Your task to perform on an android device: View the shopping cart on newegg. Image 0: 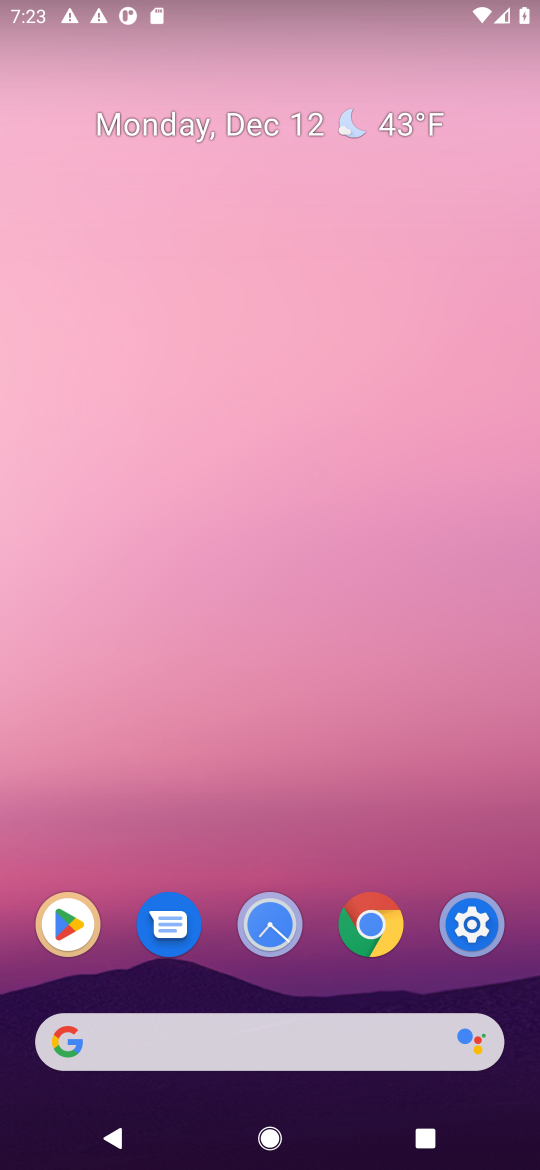
Step 0: click (272, 1039)
Your task to perform on an android device: View the shopping cart on newegg. Image 1: 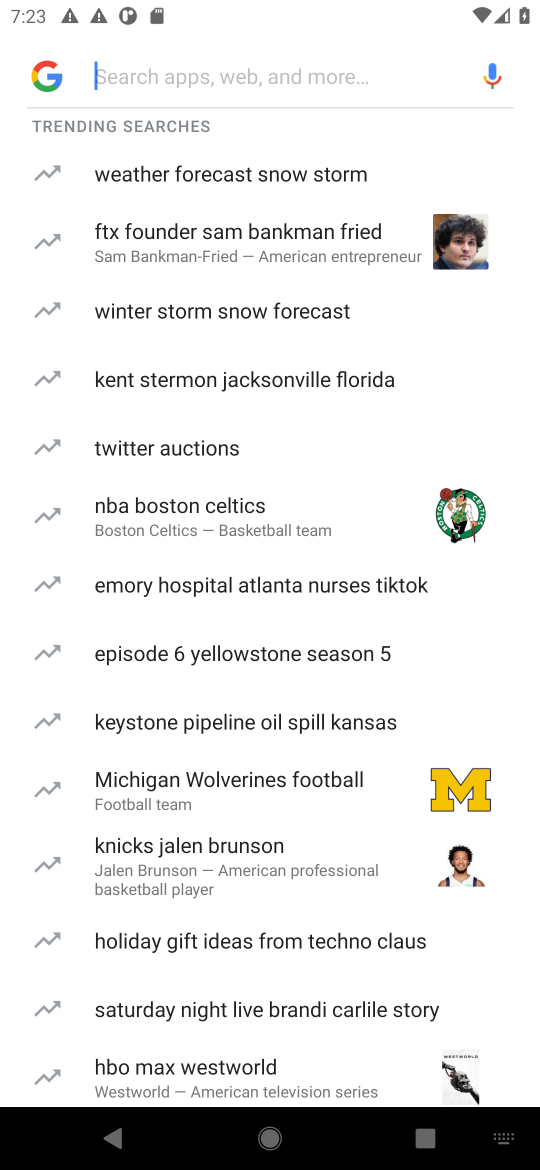
Step 1: type "newegg"
Your task to perform on an android device: View the shopping cart on newegg. Image 2: 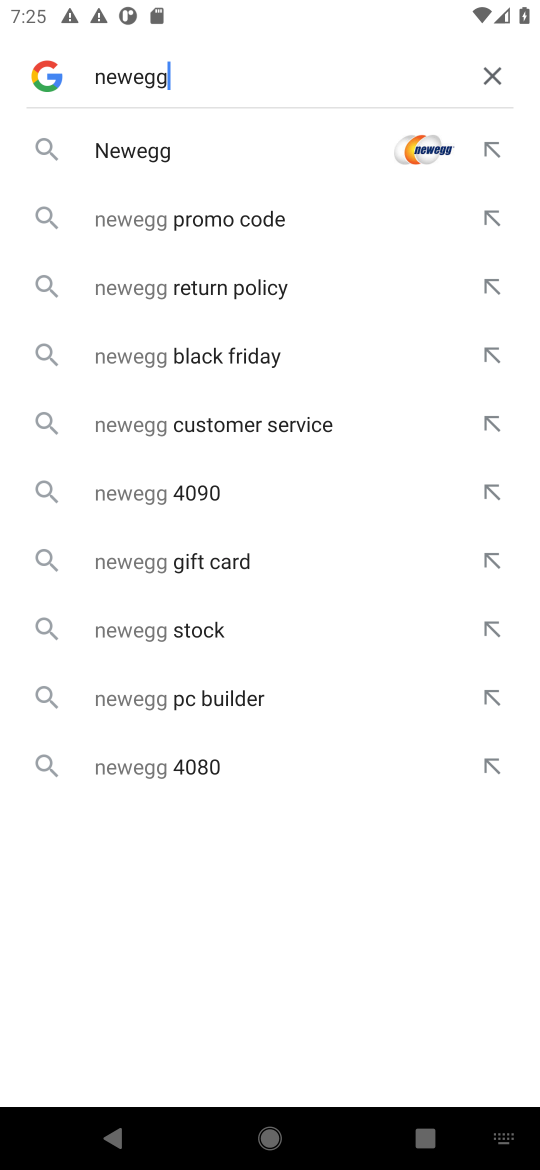
Step 2: click (142, 153)
Your task to perform on an android device: View the shopping cart on newegg. Image 3: 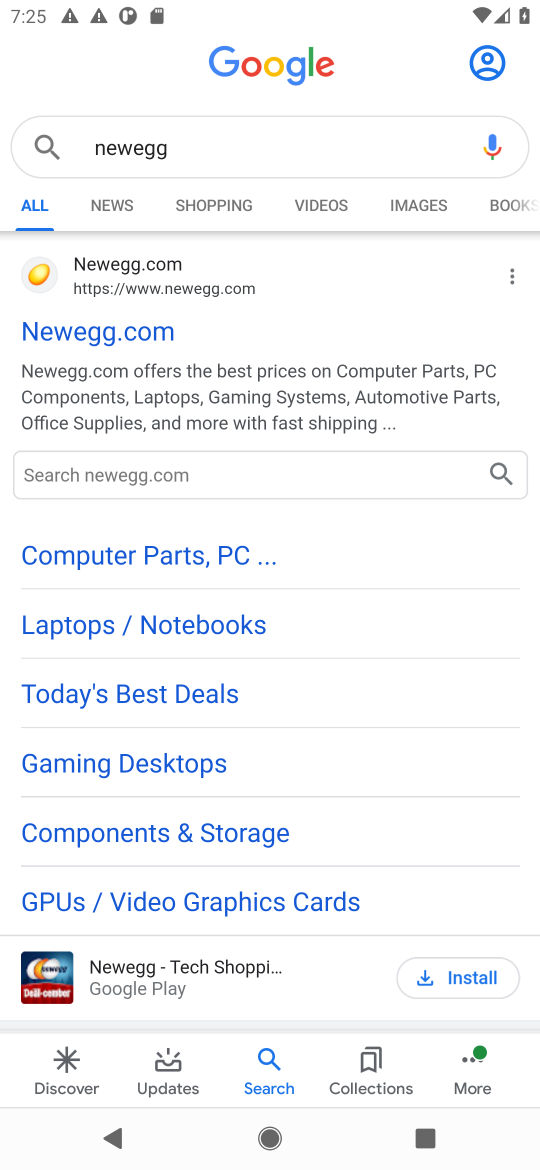
Step 3: click (79, 326)
Your task to perform on an android device: View the shopping cart on newegg. Image 4: 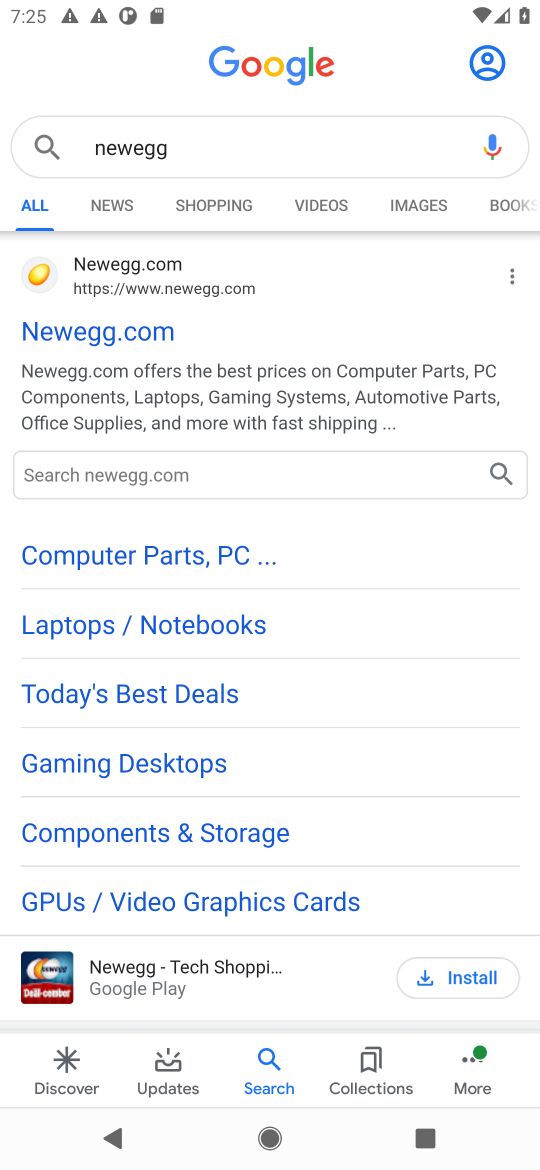
Step 4: click (79, 326)
Your task to perform on an android device: View the shopping cart on newegg. Image 5: 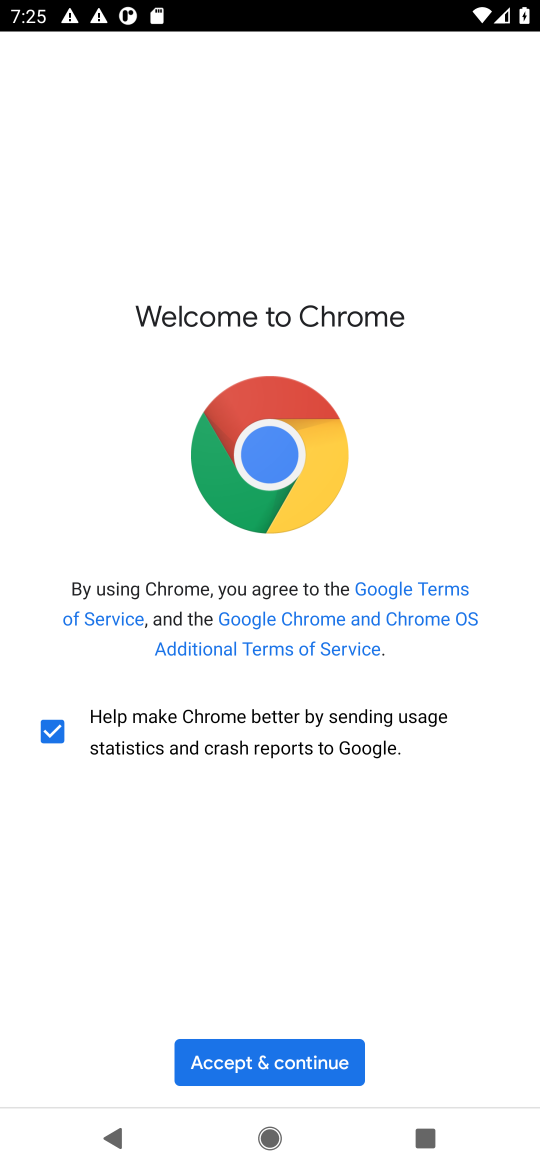
Step 5: click (243, 1058)
Your task to perform on an android device: View the shopping cart on newegg. Image 6: 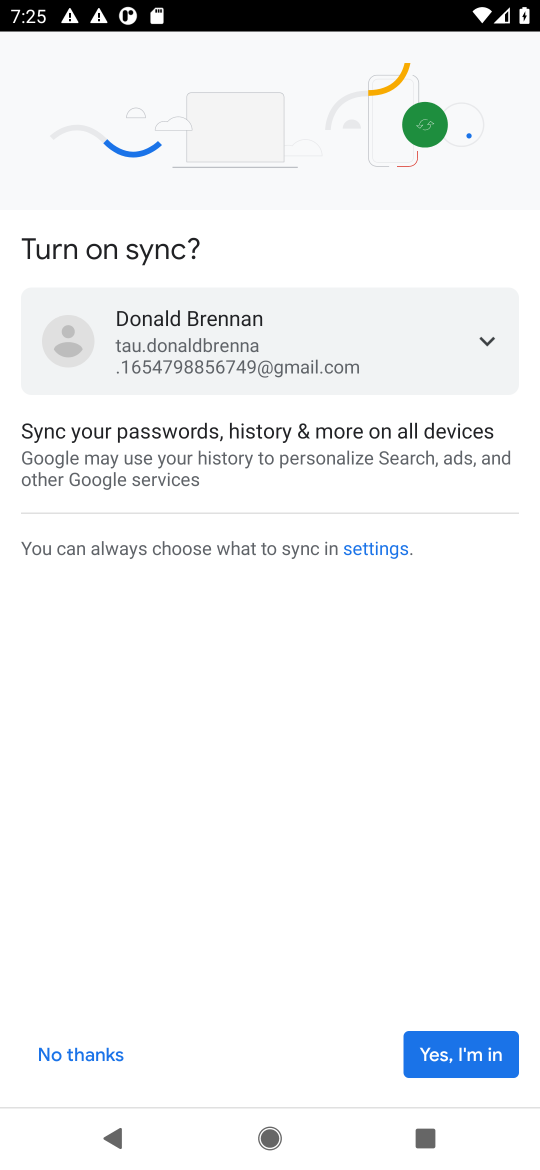
Step 6: click (450, 1059)
Your task to perform on an android device: View the shopping cart on newegg. Image 7: 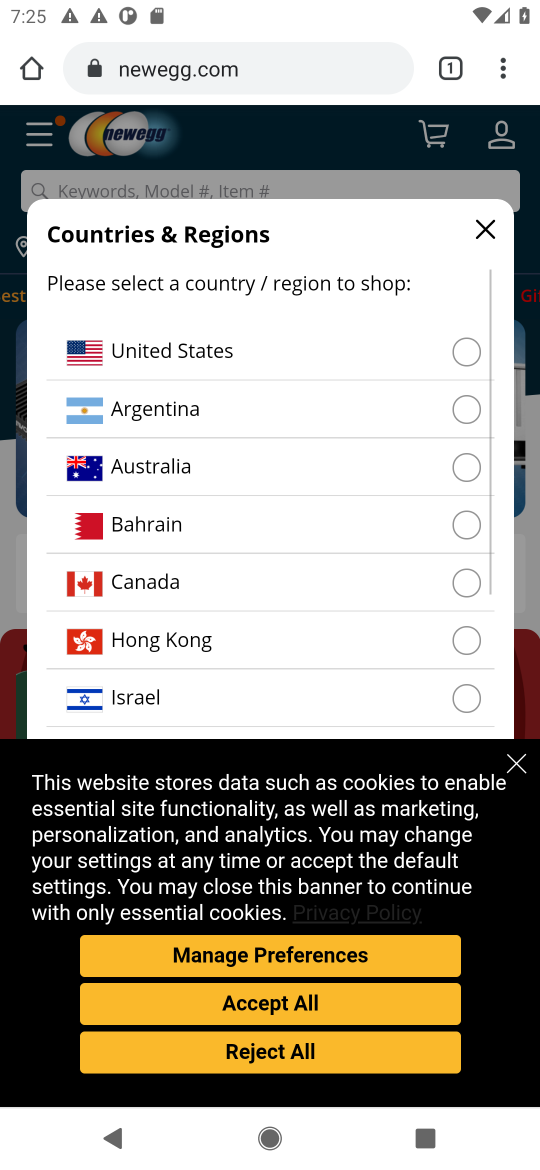
Step 7: click (472, 361)
Your task to perform on an android device: View the shopping cart on newegg. Image 8: 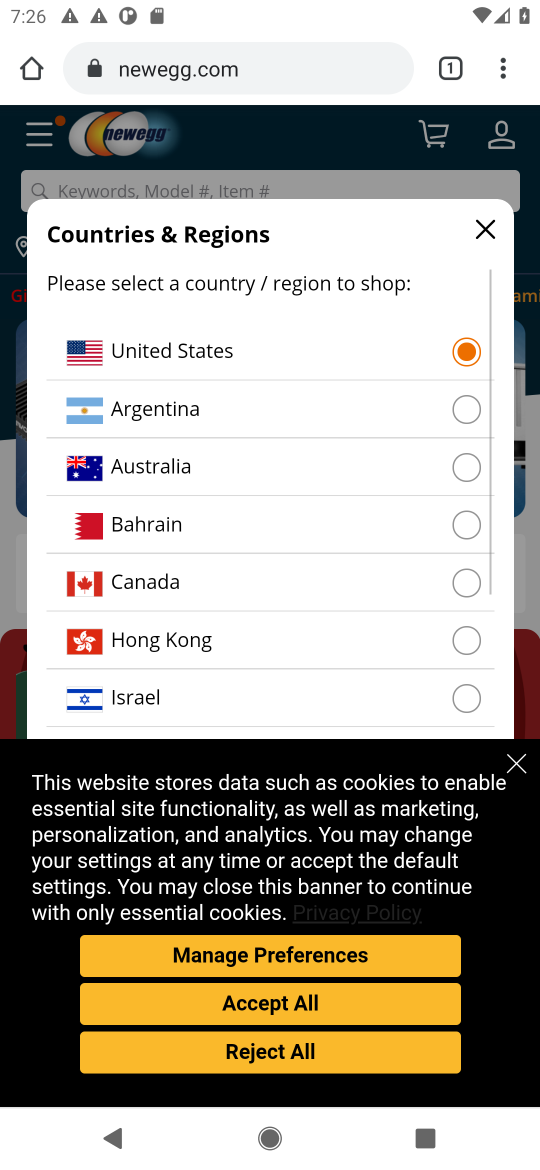
Step 8: click (493, 228)
Your task to perform on an android device: View the shopping cart on newegg. Image 9: 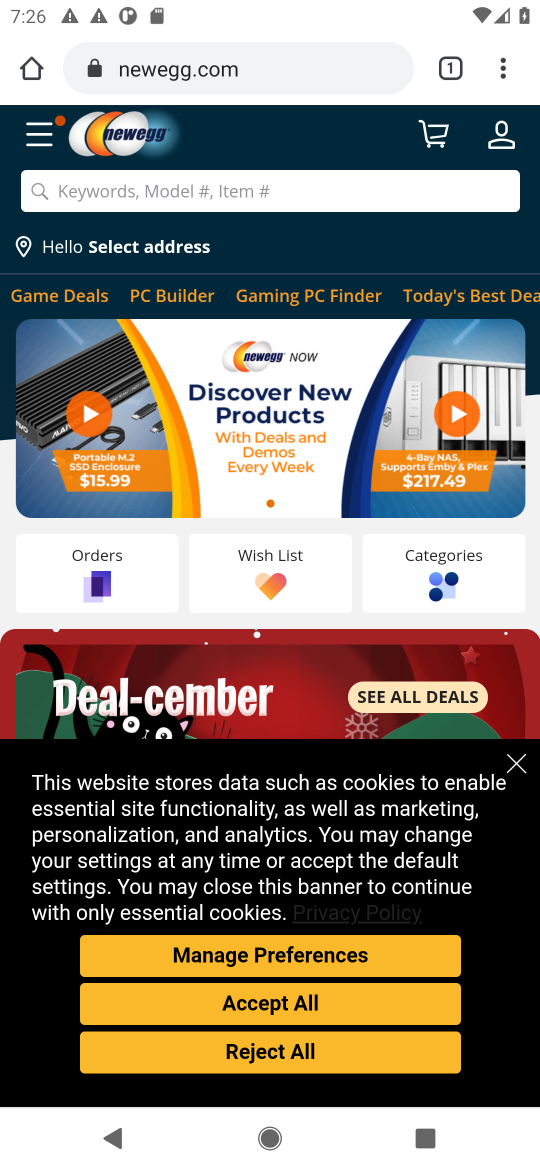
Step 9: click (516, 772)
Your task to perform on an android device: View the shopping cart on newegg. Image 10: 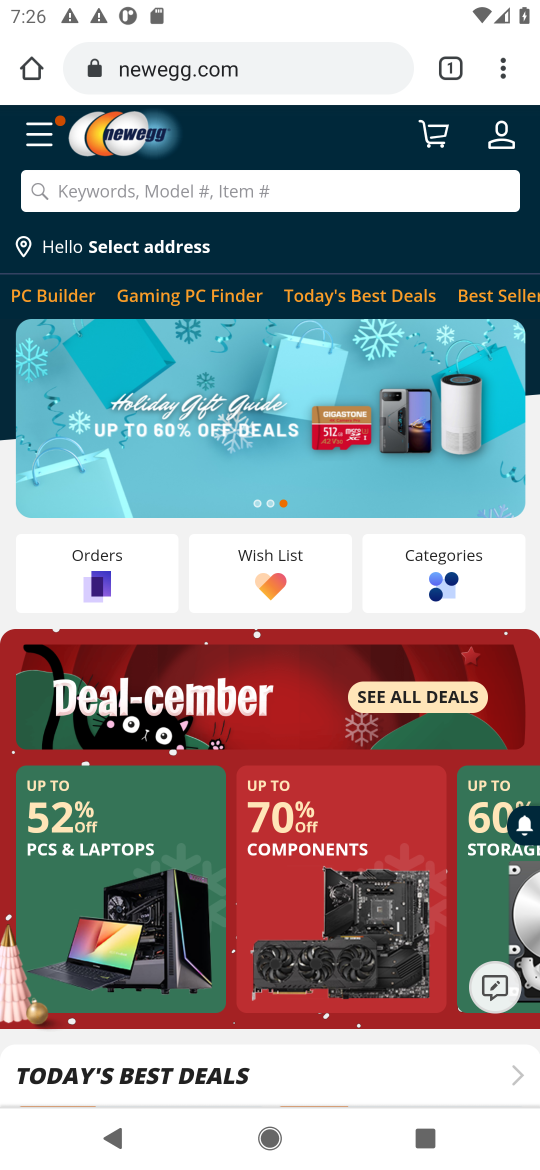
Step 10: click (429, 129)
Your task to perform on an android device: View the shopping cart on newegg. Image 11: 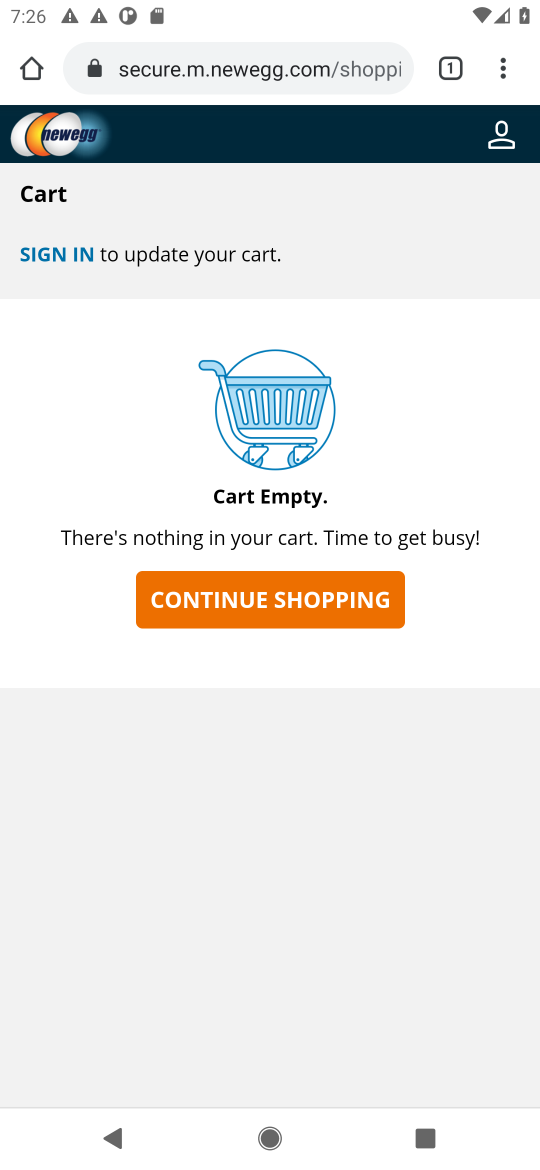
Step 11: task complete